Your task to perform on an android device: Open Amazon Image 0: 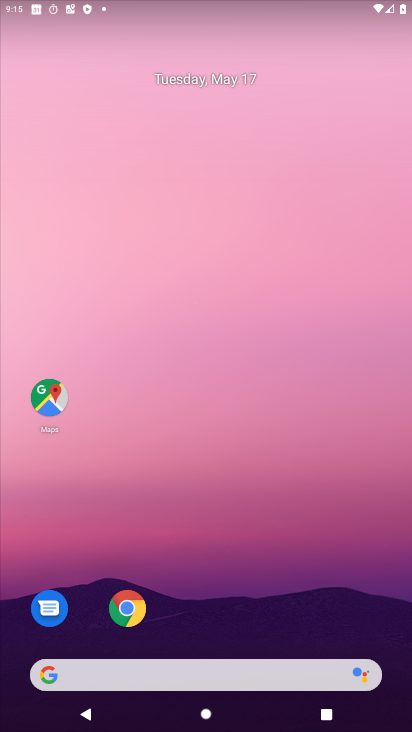
Step 0: drag from (317, 583) to (331, 81)
Your task to perform on an android device: Open Amazon Image 1: 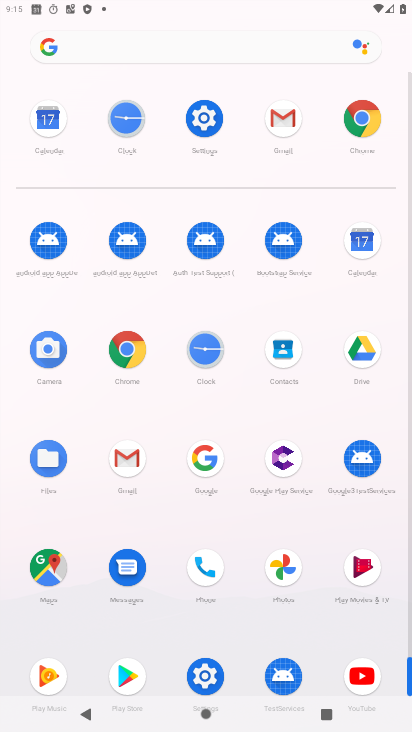
Step 1: click (352, 136)
Your task to perform on an android device: Open Amazon Image 2: 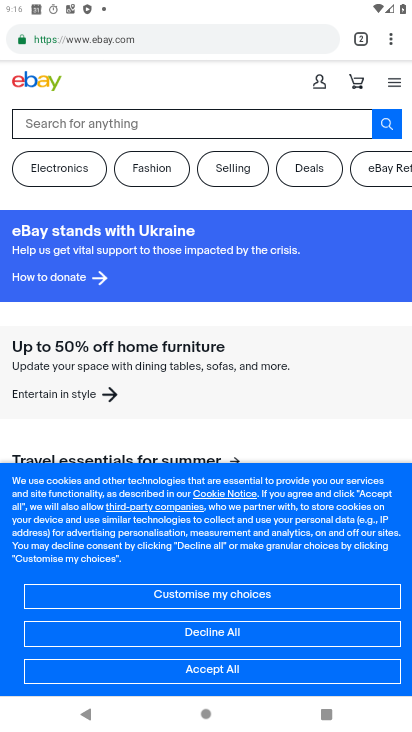
Step 2: click (237, 38)
Your task to perform on an android device: Open Amazon Image 3: 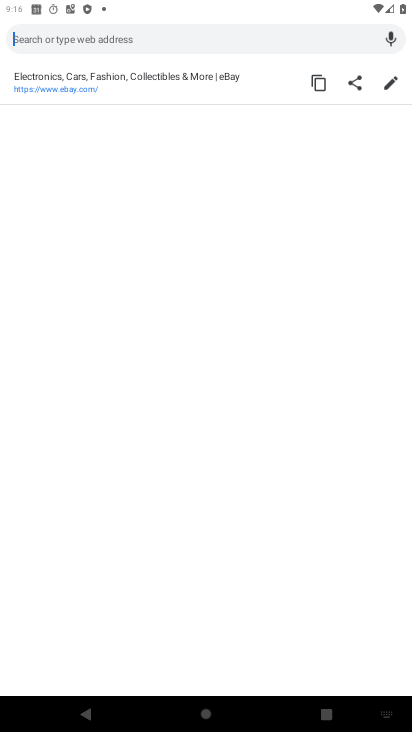
Step 3: type "amazon"
Your task to perform on an android device: Open Amazon Image 4: 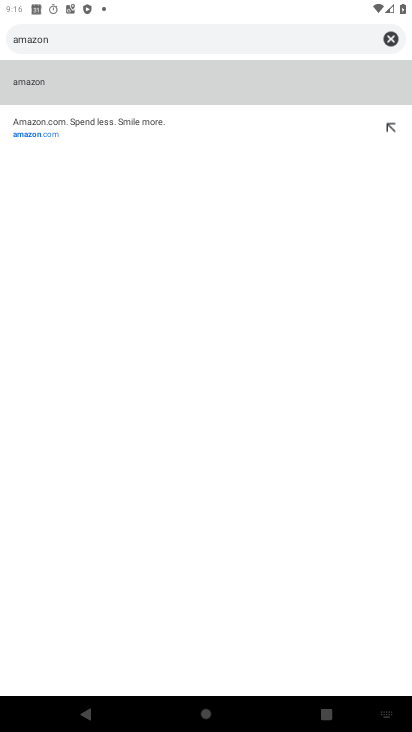
Step 4: click (118, 75)
Your task to perform on an android device: Open Amazon Image 5: 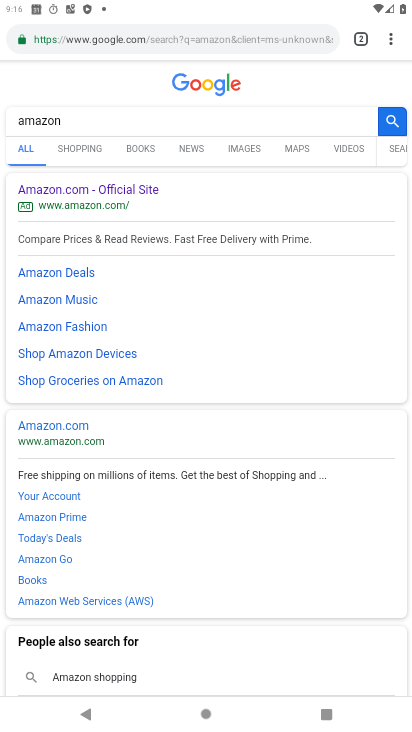
Step 5: task complete